Your task to perform on an android device: Open sound settings Image 0: 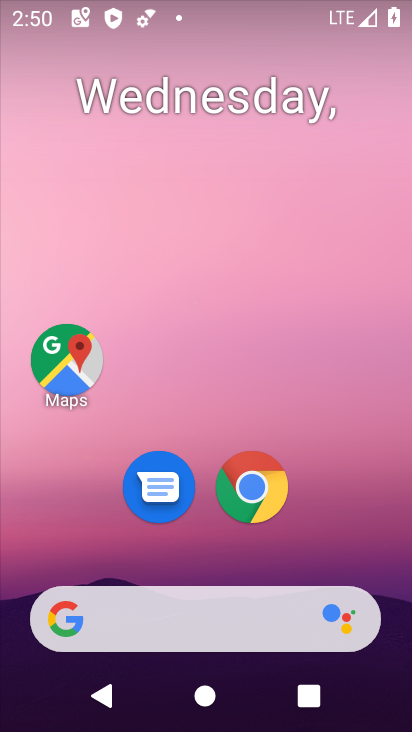
Step 0: drag from (314, 538) to (320, 97)
Your task to perform on an android device: Open sound settings Image 1: 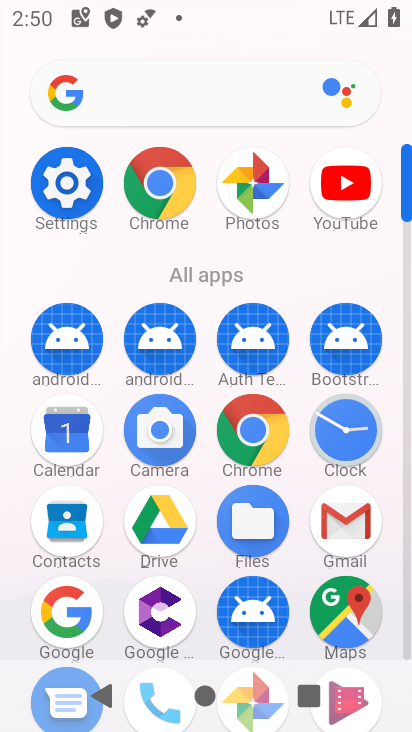
Step 1: click (79, 184)
Your task to perform on an android device: Open sound settings Image 2: 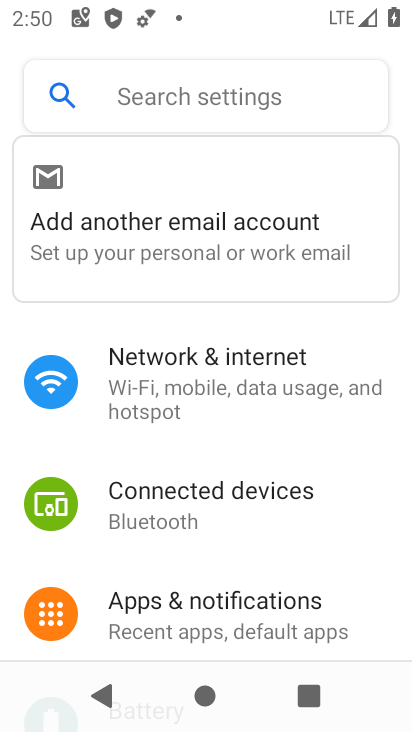
Step 2: drag from (234, 446) to (278, 6)
Your task to perform on an android device: Open sound settings Image 3: 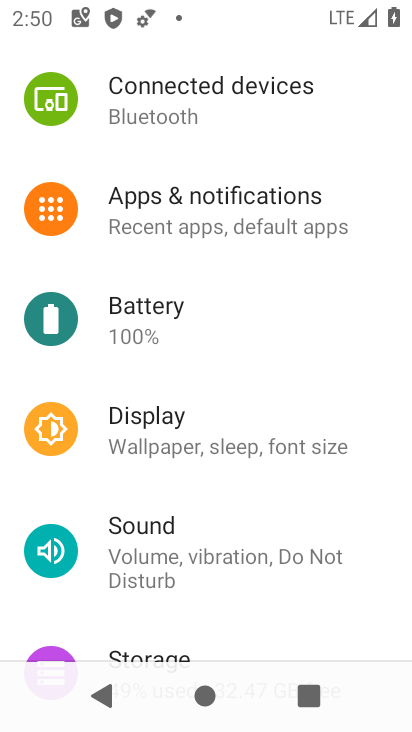
Step 3: click (241, 549)
Your task to perform on an android device: Open sound settings Image 4: 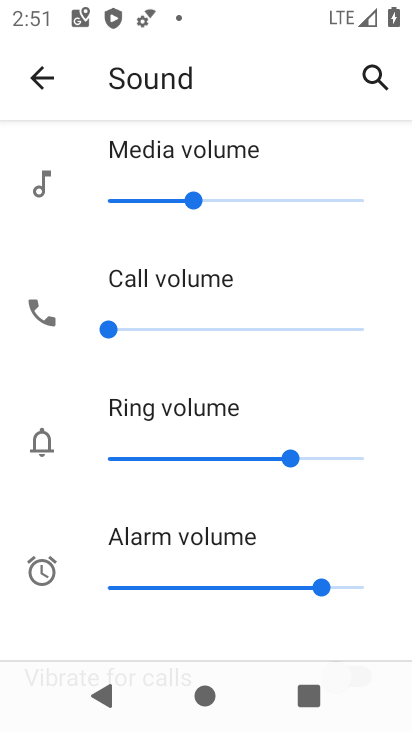
Step 4: task complete